Your task to perform on an android device: Do I have any events tomorrow? Image 0: 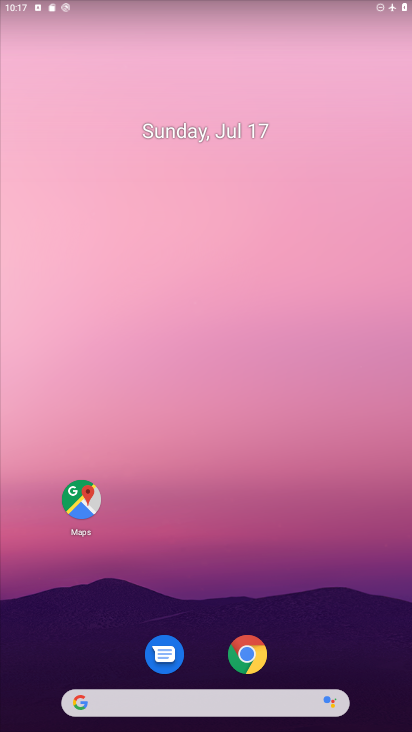
Step 0: drag from (210, 583) to (215, 186)
Your task to perform on an android device: Do I have any events tomorrow? Image 1: 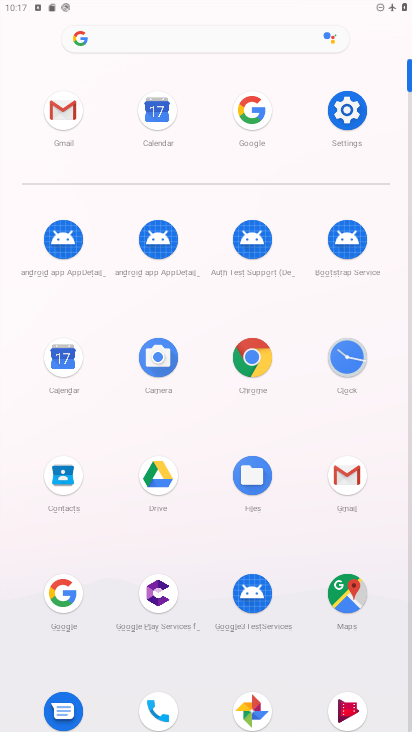
Step 1: click (67, 366)
Your task to perform on an android device: Do I have any events tomorrow? Image 2: 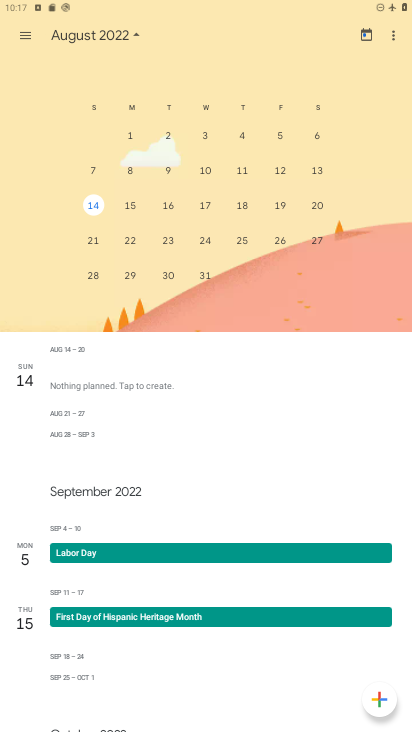
Step 2: drag from (40, 170) to (410, 165)
Your task to perform on an android device: Do I have any events tomorrow? Image 3: 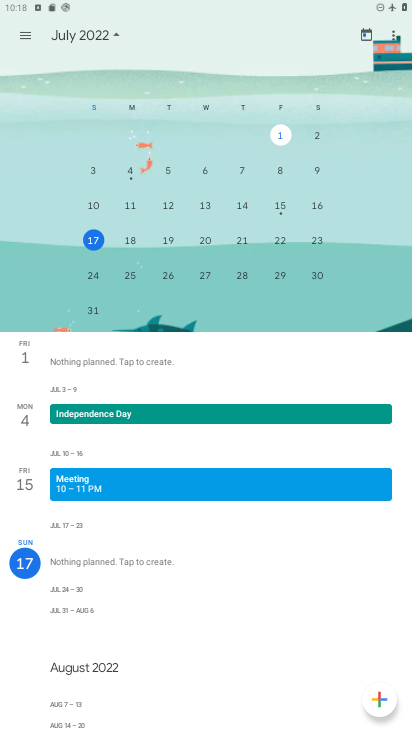
Step 3: click (129, 235)
Your task to perform on an android device: Do I have any events tomorrow? Image 4: 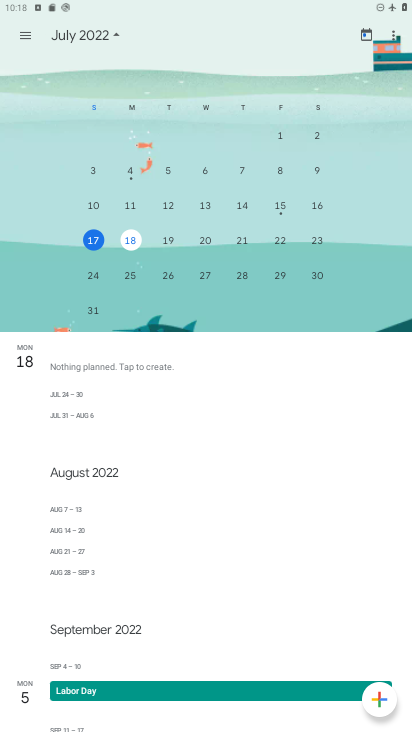
Step 4: task complete